Your task to perform on an android device: visit the assistant section in the google photos Image 0: 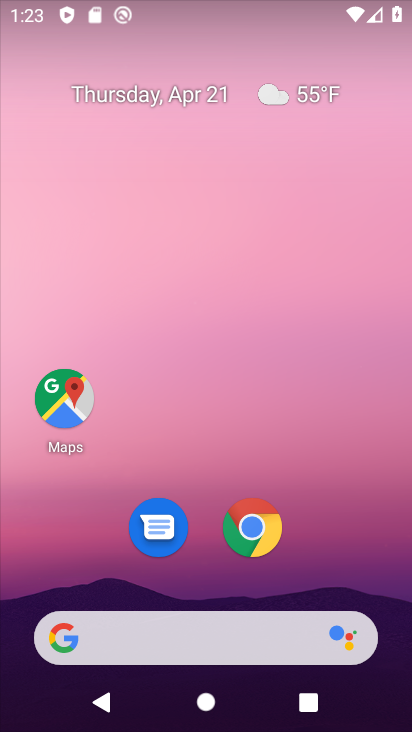
Step 0: drag from (315, 552) to (318, 105)
Your task to perform on an android device: visit the assistant section in the google photos Image 1: 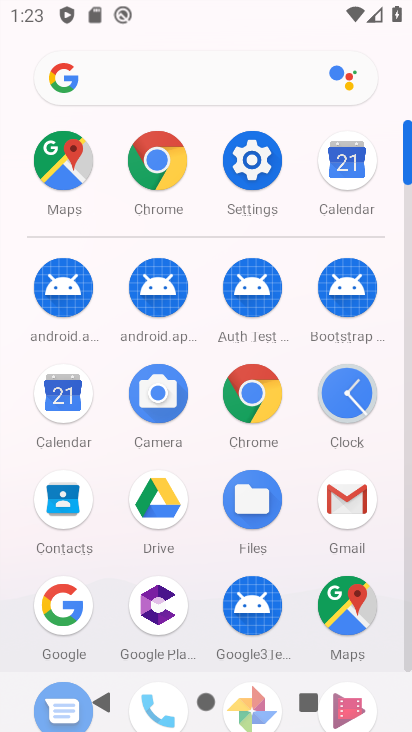
Step 1: drag from (203, 611) to (206, 232)
Your task to perform on an android device: visit the assistant section in the google photos Image 2: 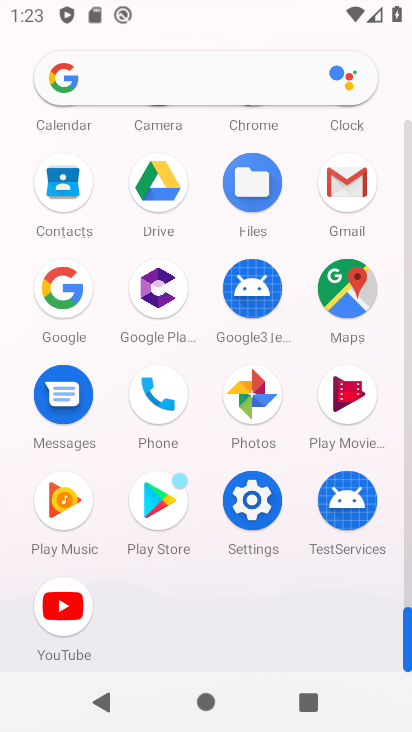
Step 2: click (252, 398)
Your task to perform on an android device: visit the assistant section in the google photos Image 3: 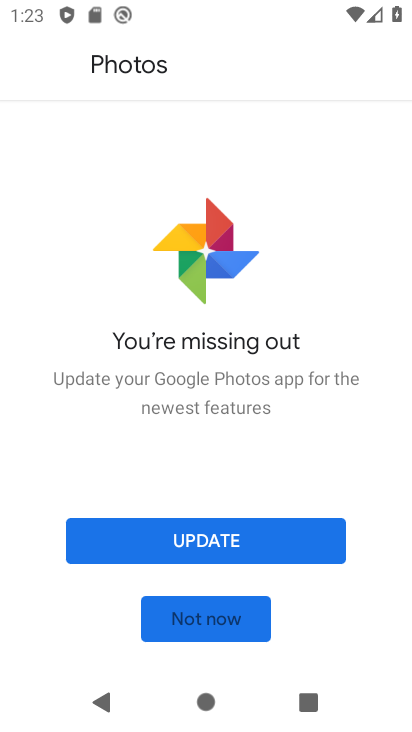
Step 3: click (234, 533)
Your task to perform on an android device: visit the assistant section in the google photos Image 4: 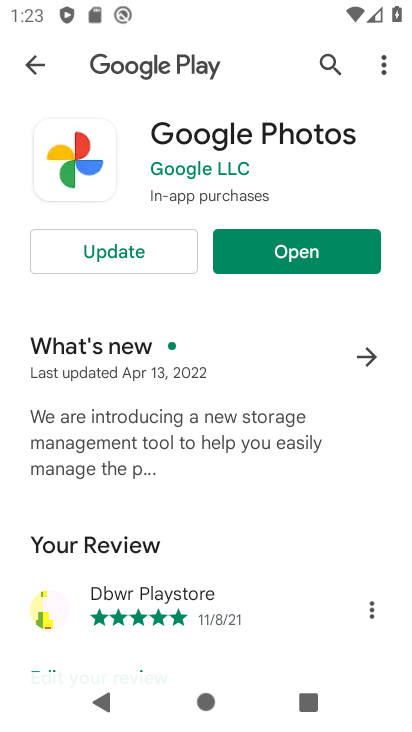
Step 4: click (167, 259)
Your task to perform on an android device: visit the assistant section in the google photos Image 5: 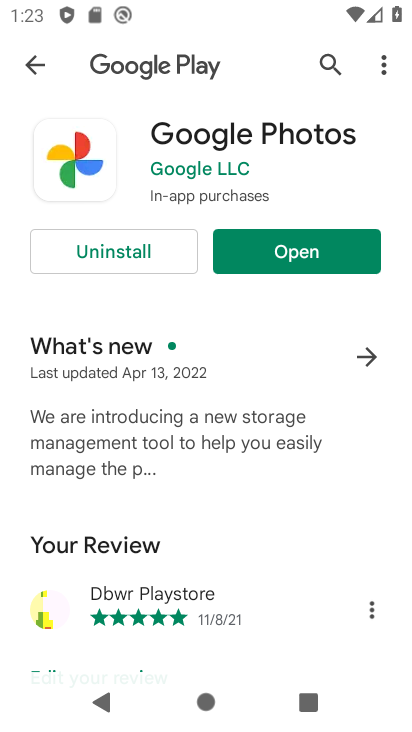
Step 5: click (297, 255)
Your task to perform on an android device: visit the assistant section in the google photos Image 6: 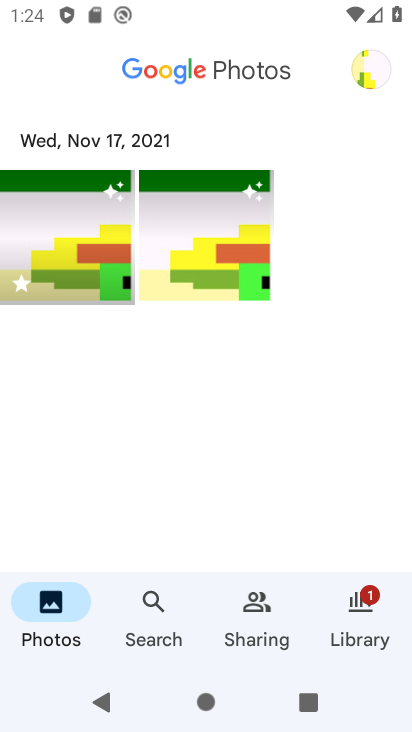
Step 6: click (365, 615)
Your task to perform on an android device: visit the assistant section in the google photos Image 7: 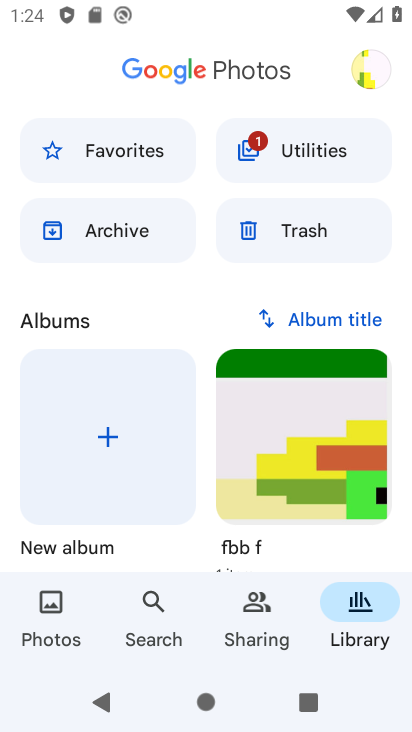
Step 7: task complete